Your task to perform on an android device: When is my next meeting? Image 0: 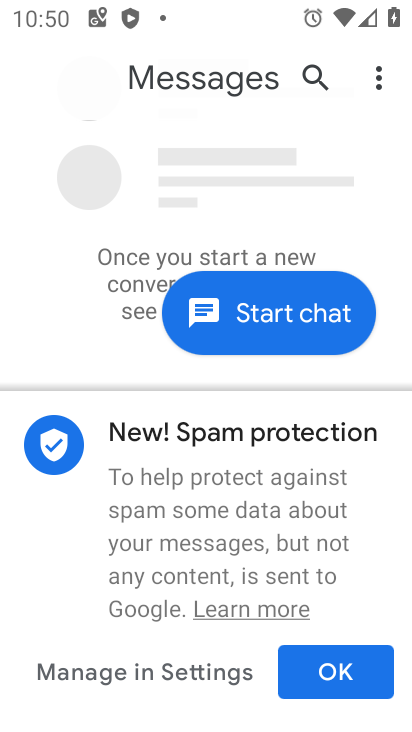
Step 0: press home button
Your task to perform on an android device: When is my next meeting? Image 1: 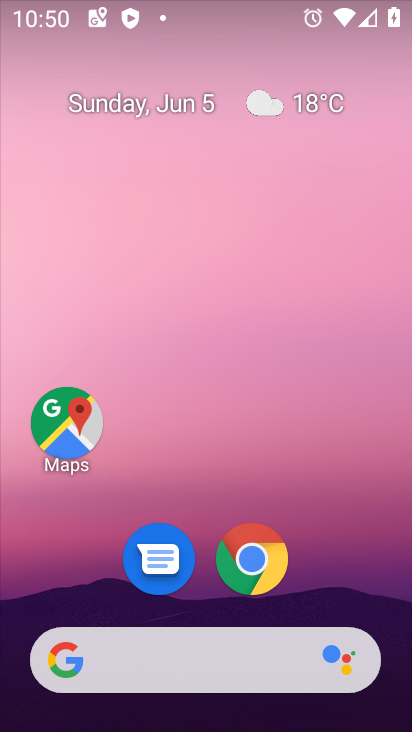
Step 1: drag from (390, 645) to (382, 182)
Your task to perform on an android device: When is my next meeting? Image 2: 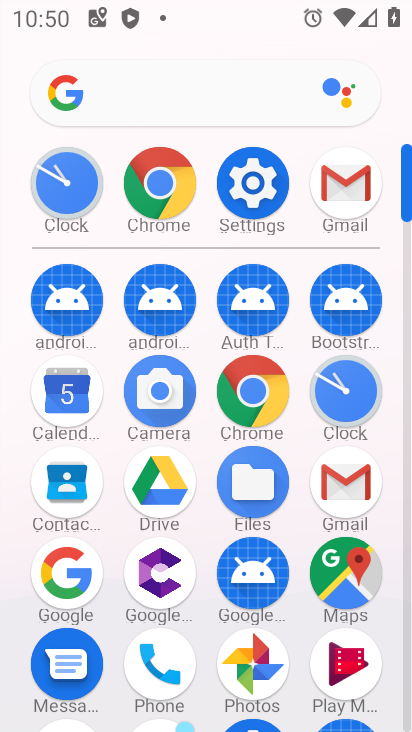
Step 2: click (62, 398)
Your task to perform on an android device: When is my next meeting? Image 3: 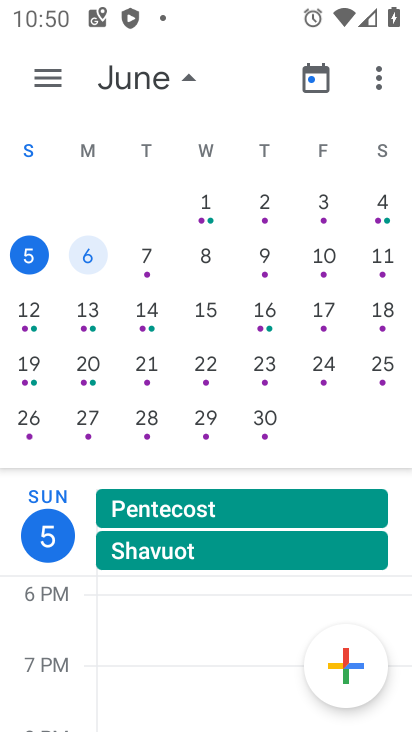
Step 3: task complete